Your task to perform on an android device: Open notification settings Image 0: 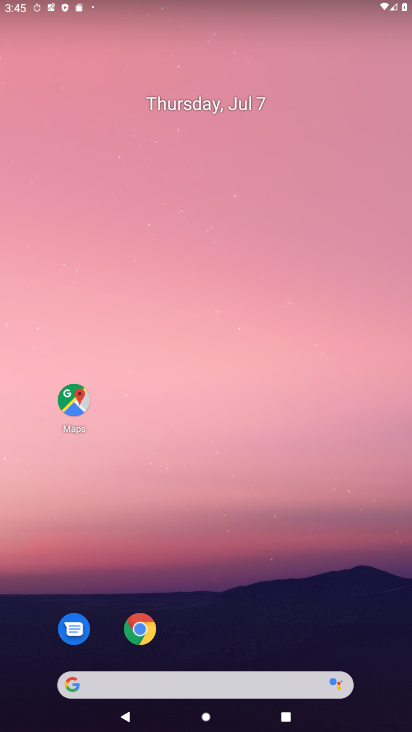
Step 0: drag from (194, 580) to (188, 113)
Your task to perform on an android device: Open notification settings Image 1: 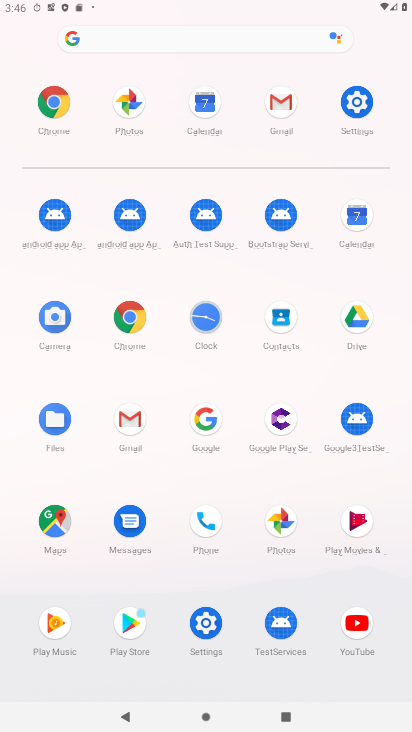
Step 1: click (352, 115)
Your task to perform on an android device: Open notification settings Image 2: 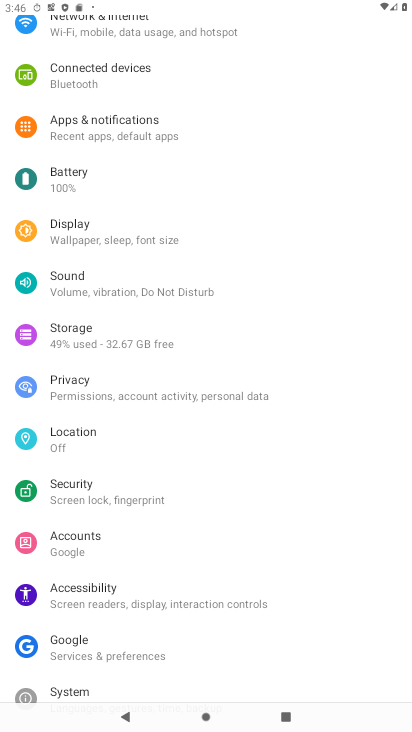
Step 2: click (145, 143)
Your task to perform on an android device: Open notification settings Image 3: 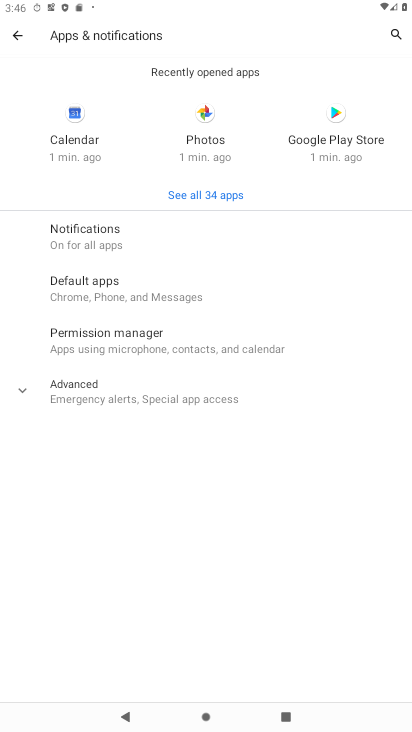
Step 3: click (99, 240)
Your task to perform on an android device: Open notification settings Image 4: 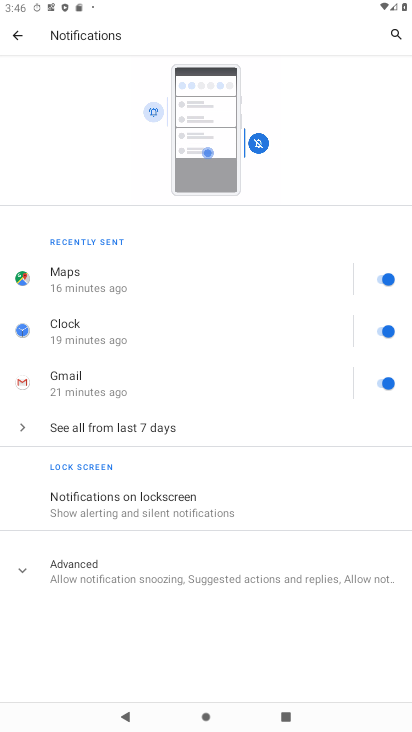
Step 4: click (118, 579)
Your task to perform on an android device: Open notification settings Image 5: 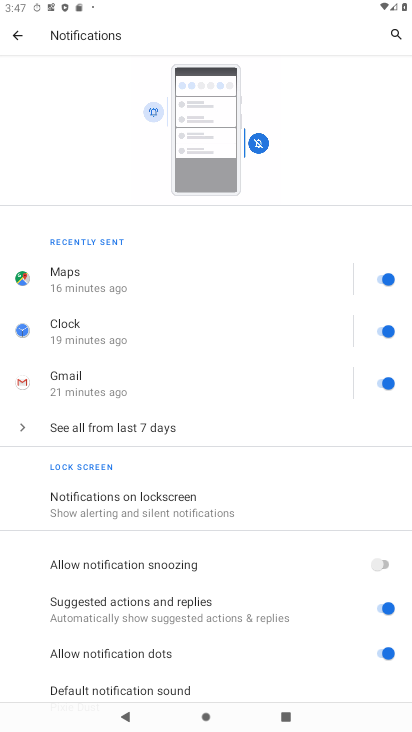
Step 5: task complete